Your task to perform on an android device: Open Google Image 0: 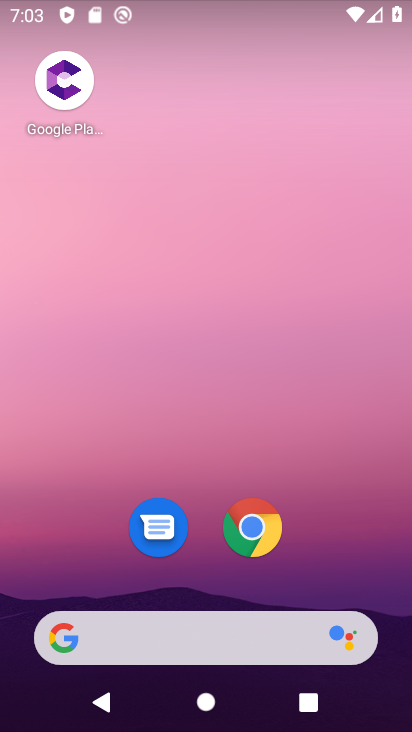
Step 0: press home button
Your task to perform on an android device: Open Google Image 1: 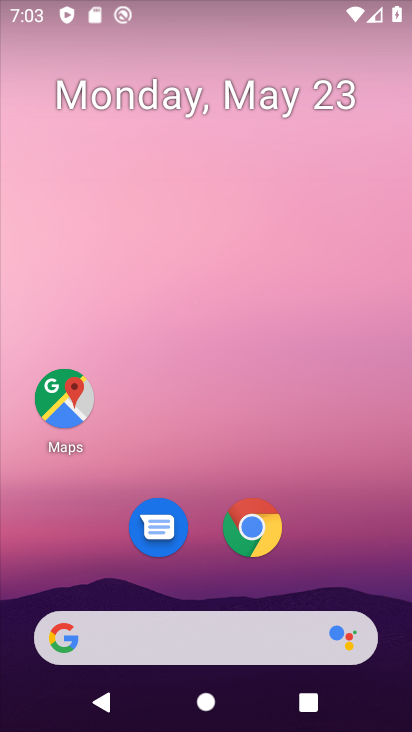
Step 1: drag from (197, 664) to (212, 89)
Your task to perform on an android device: Open Google Image 2: 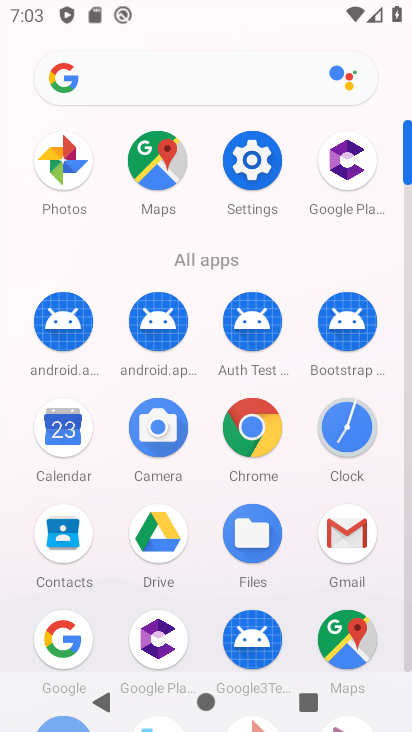
Step 2: click (64, 76)
Your task to perform on an android device: Open Google Image 3: 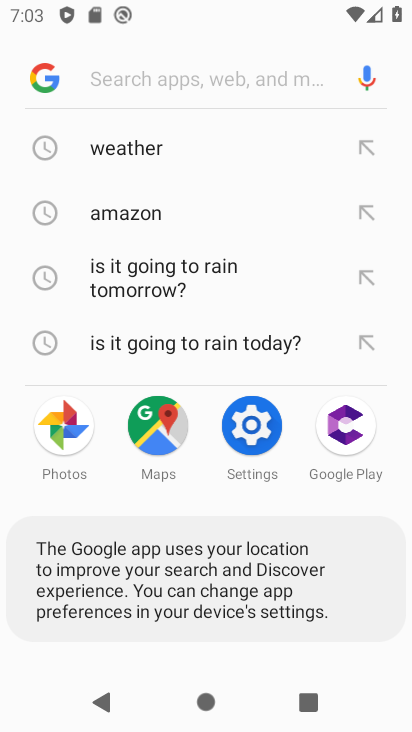
Step 3: click (52, 81)
Your task to perform on an android device: Open Google Image 4: 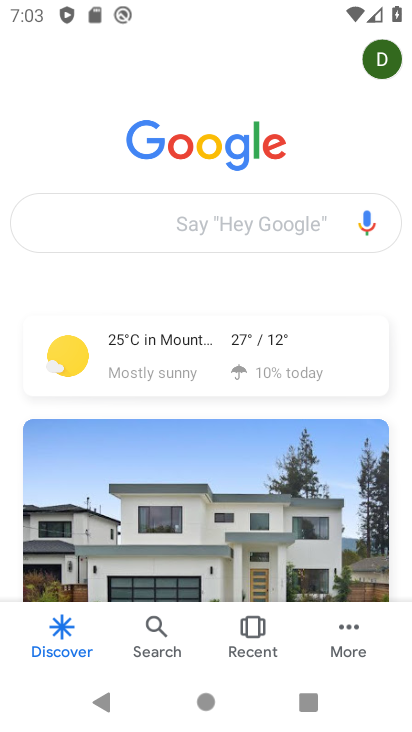
Step 4: task complete